Your task to perform on an android device: see creations saved in the google photos Image 0: 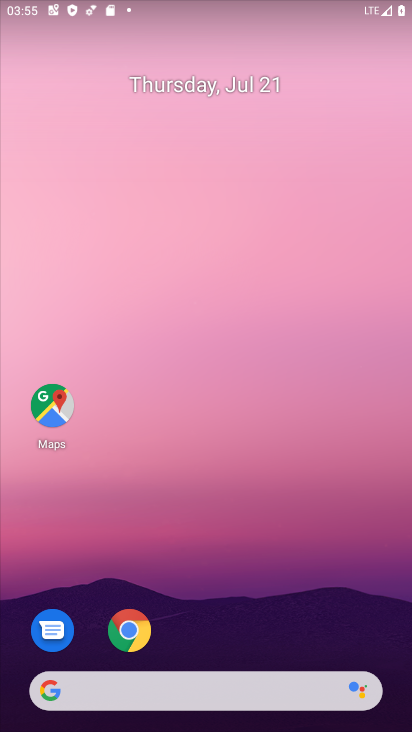
Step 0: drag from (358, 472) to (354, 80)
Your task to perform on an android device: see creations saved in the google photos Image 1: 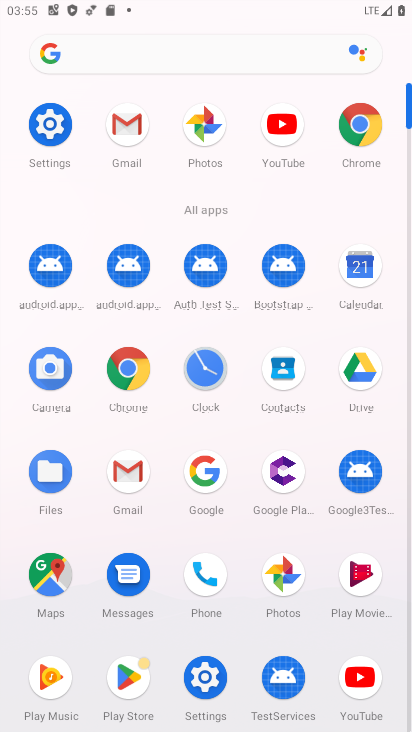
Step 1: click (212, 137)
Your task to perform on an android device: see creations saved in the google photos Image 2: 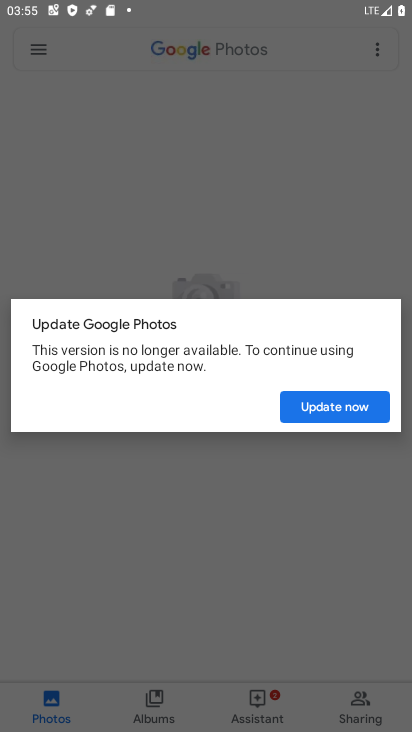
Step 2: task complete